Your task to perform on an android device: toggle sleep mode Image 0: 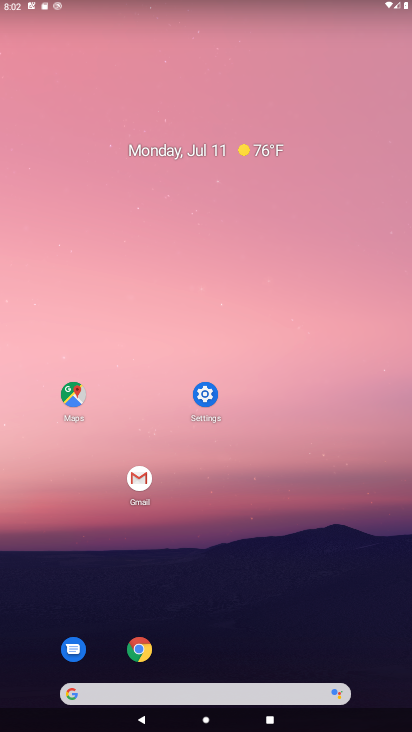
Step 0: click (199, 393)
Your task to perform on an android device: toggle sleep mode Image 1: 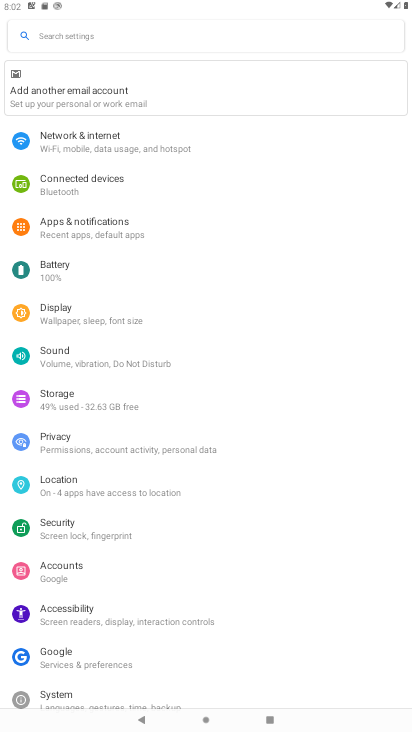
Step 1: click (52, 311)
Your task to perform on an android device: toggle sleep mode Image 2: 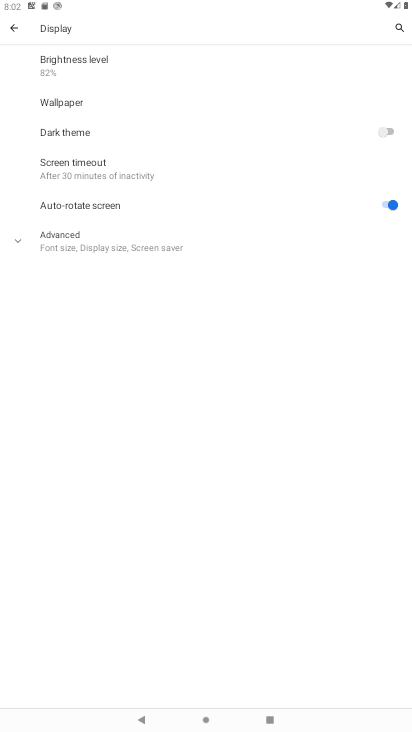
Step 2: click (16, 239)
Your task to perform on an android device: toggle sleep mode Image 3: 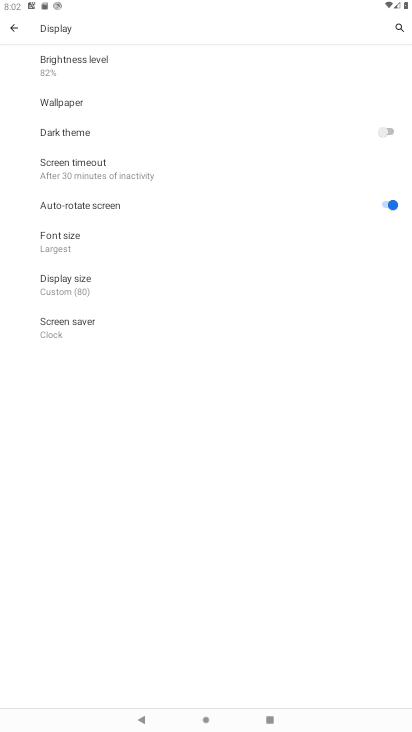
Step 3: click (73, 170)
Your task to perform on an android device: toggle sleep mode Image 4: 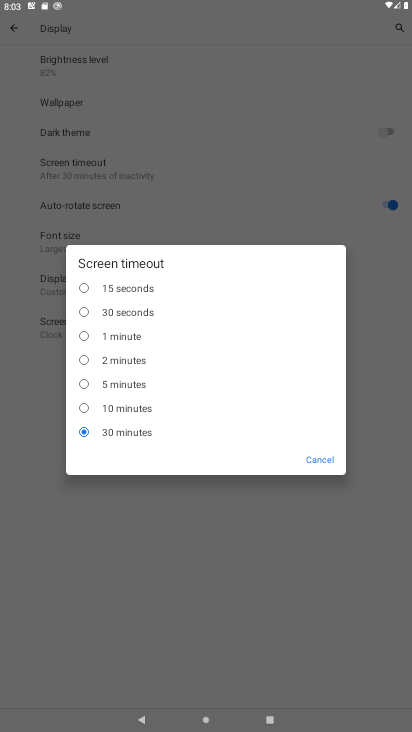
Step 4: click (83, 406)
Your task to perform on an android device: toggle sleep mode Image 5: 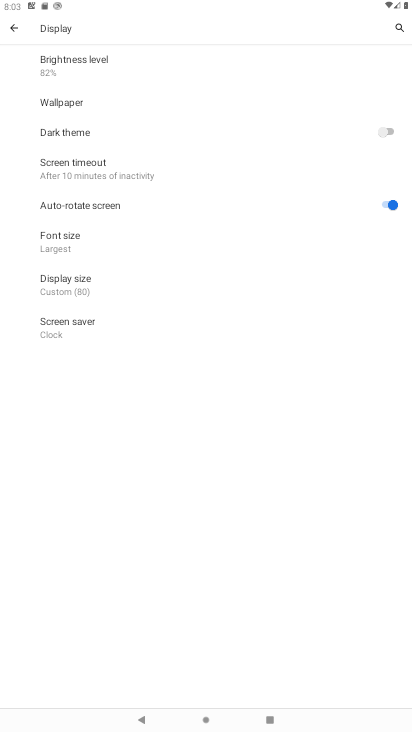
Step 5: task complete